Your task to perform on an android device: Show me productivity apps on the Play Store Image 0: 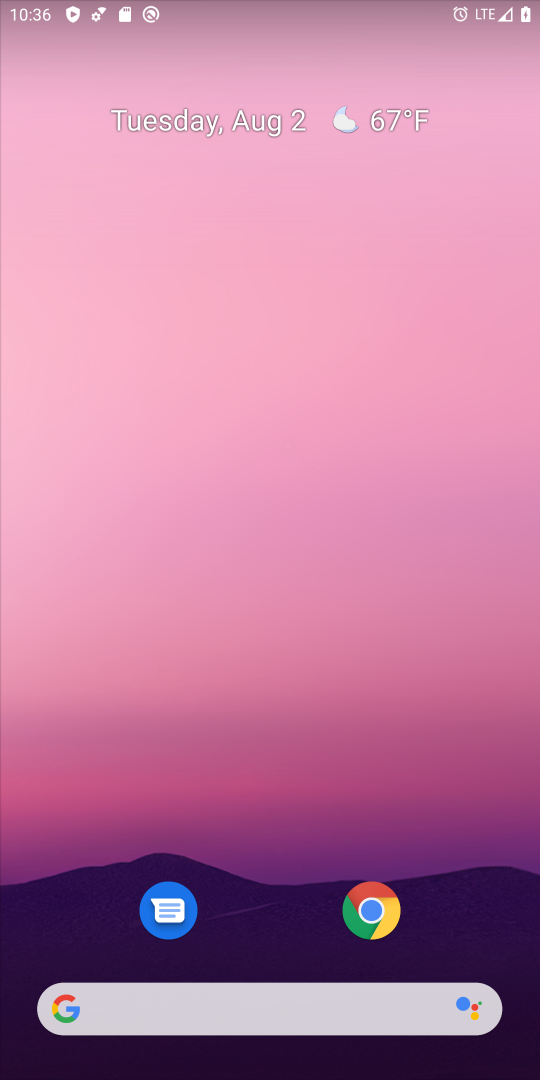
Step 0: drag from (323, 882) to (323, 109)
Your task to perform on an android device: Show me productivity apps on the Play Store Image 1: 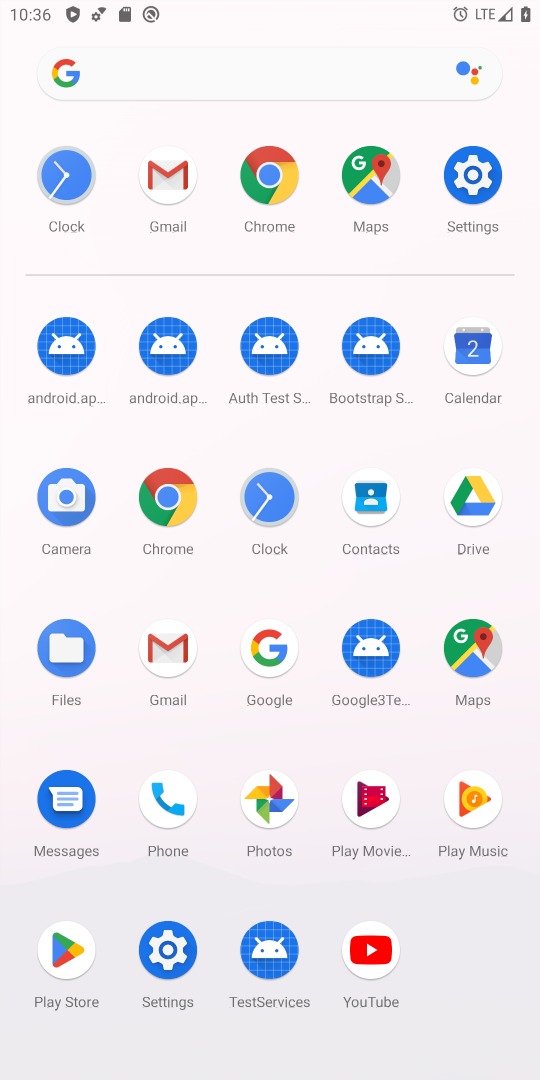
Step 1: click (73, 936)
Your task to perform on an android device: Show me productivity apps on the Play Store Image 2: 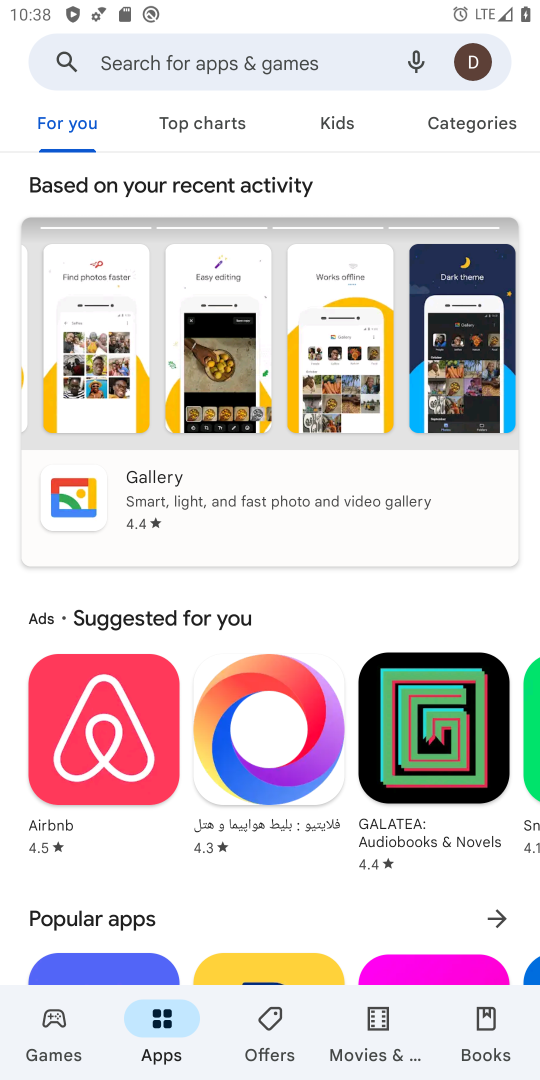
Step 2: task complete